Your task to perform on an android device: find which apps use the phone's location Image 0: 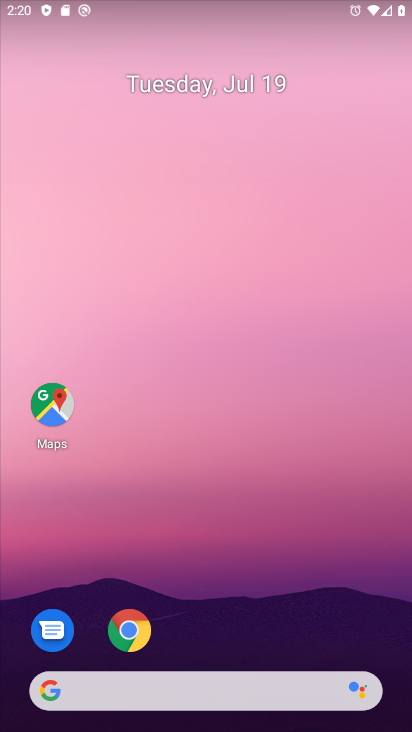
Step 0: drag from (239, 596) to (288, 34)
Your task to perform on an android device: find which apps use the phone's location Image 1: 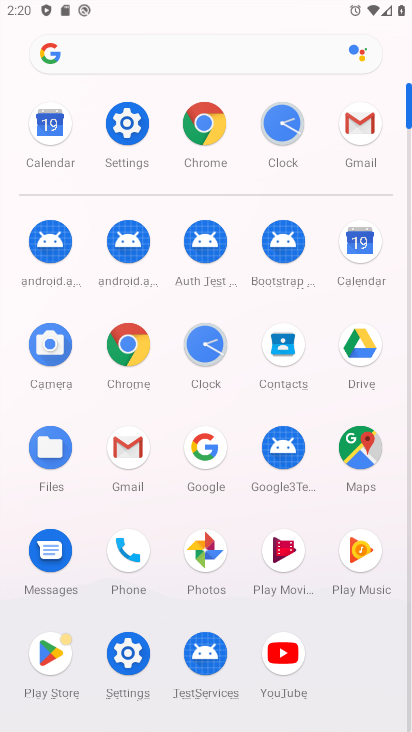
Step 1: click (130, 118)
Your task to perform on an android device: find which apps use the phone's location Image 2: 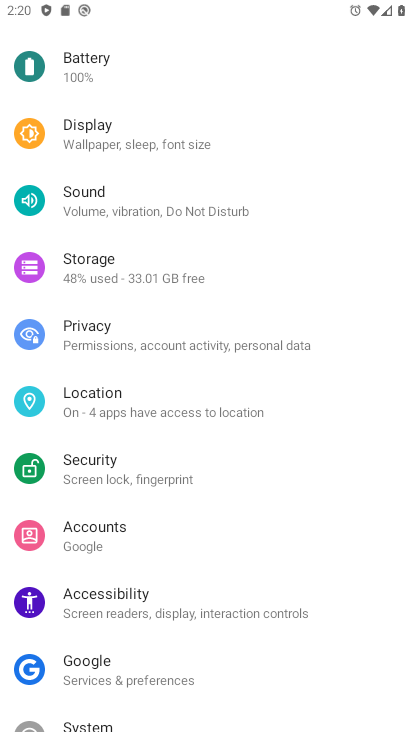
Step 2: click (155, 398)
Your task to perform on an android device: find which apps use the phone's location Image 3: 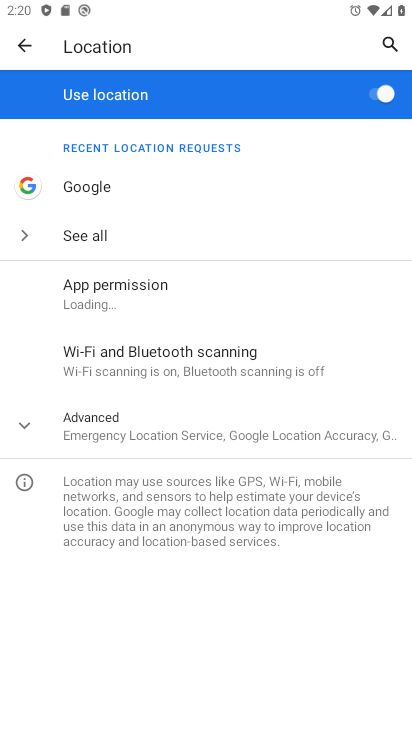
Step 3: click (137, 286)
Your task to perform on an android device: find which apps use the phone's location Image 4: 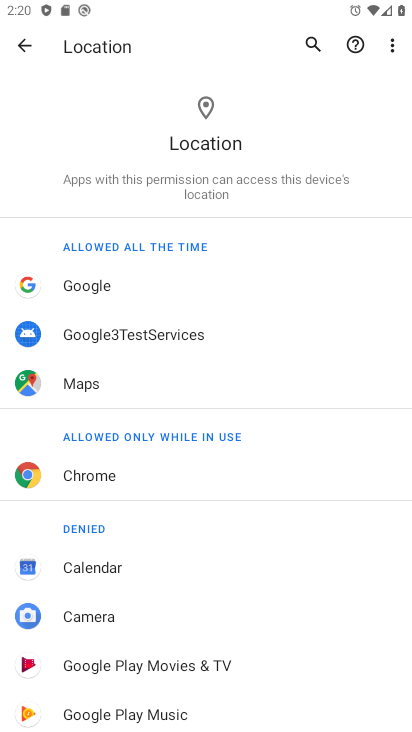
Step 4: task complete